Your task to perform on an android device: install app "Pandora - Music & Podcasts" Image 0: 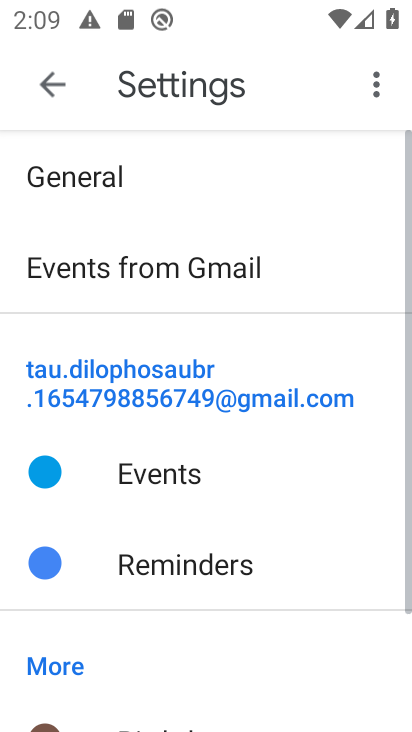
Step 0: press home button
Your task to perform on an android device: install app "Pandora - Music & Podcasts" Image 1: 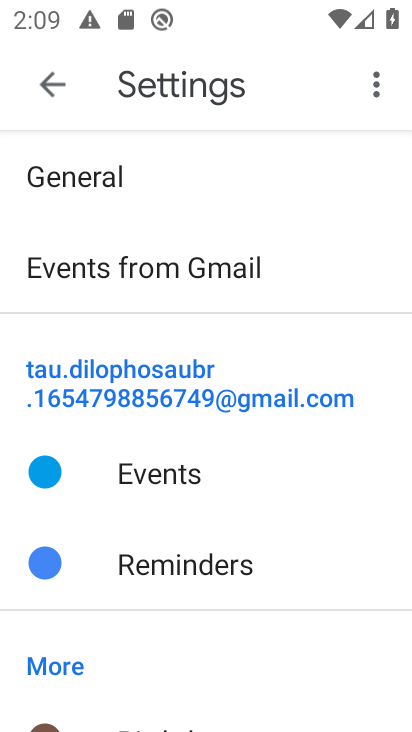
Step 1: drag from (353, 483) to (244, 30)
Your task to perform on an android device: install app "Pandora - Music & Podcasts" Image 2: 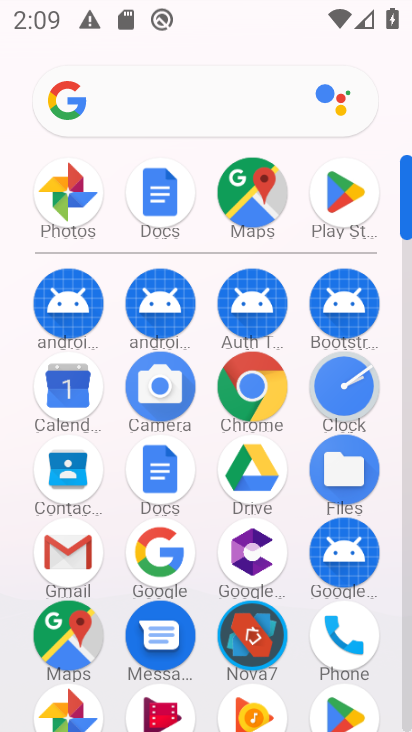
Step 2: click (334, 175)
Your task to perform on an android device: install app "Pandora - Music & Podcasts" Image 3: 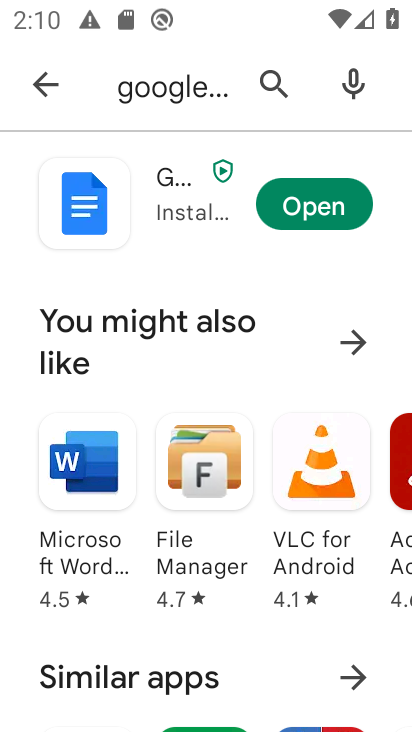
Step 3: press back button
Your task to perform on an android device: install app "Pandora - Music & Podcasts" Image 4: 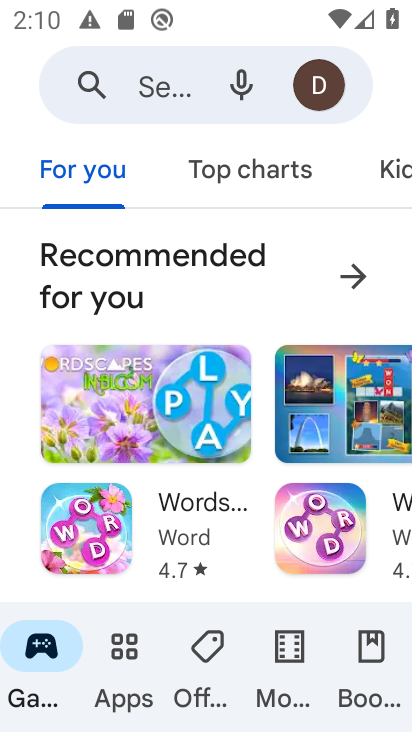
Step 4: click (153, 87)
Your task to perform on an android device: install app "Pandora - Music & Podcasts" Image 5: 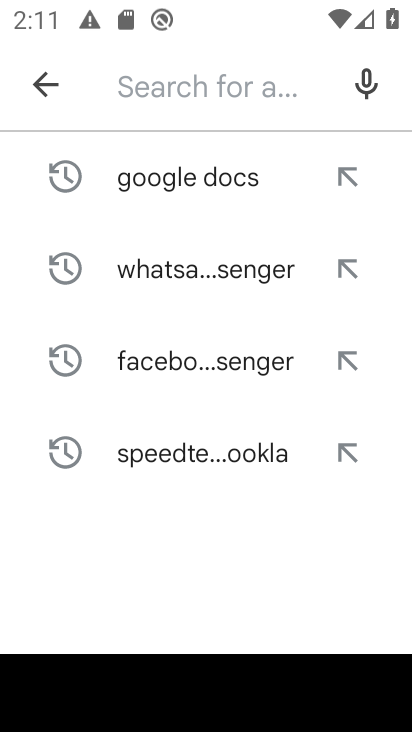
Step 5: type "Pandora - Music & Podcasts"
Your task to perform on an android device: install app "Pandora - Music & Podcasts" Image 6: 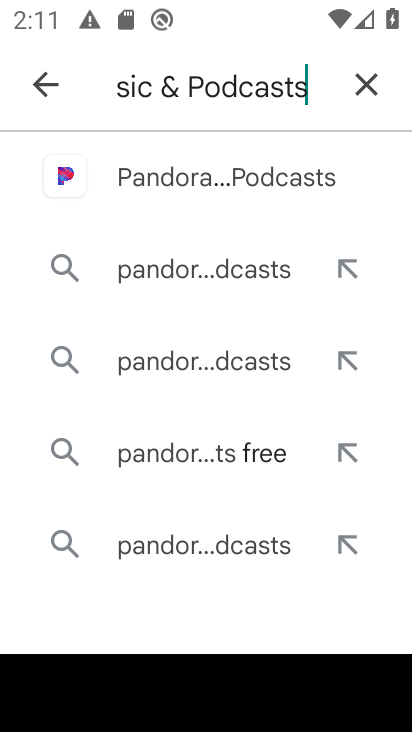
Step 6: click (182, 175)
Your task to perform on an android device: install app "Pandora - Music & Podcasts" Image 7: 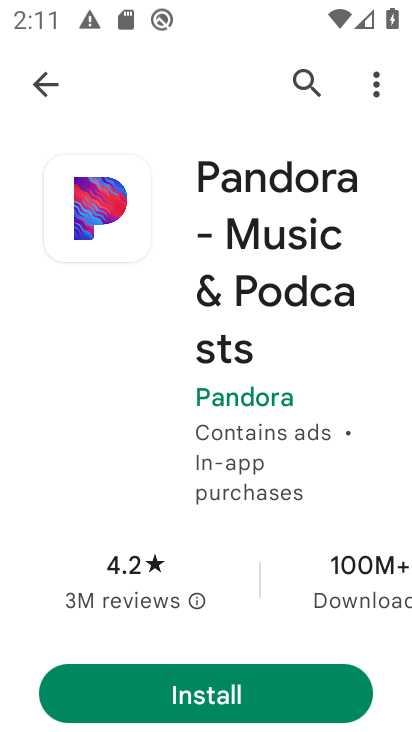
Step 7: click (190, 684)
Your task to perform on an android device: install app "Pandora - Music & Podcasts" Image 8: 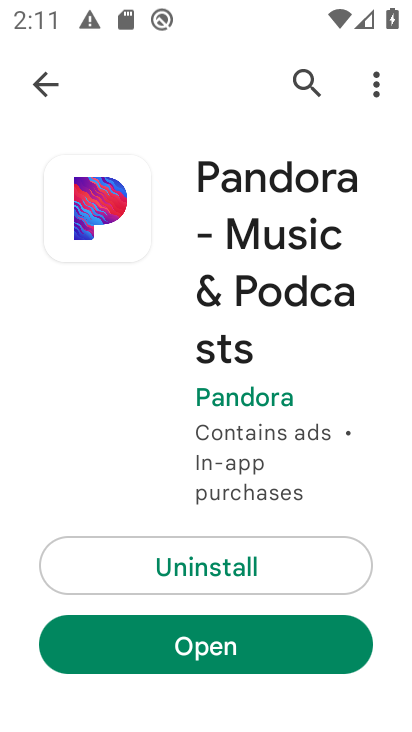
Step 8: task complete